Your task to perform on an android device: move a message to another label in the gmail app Image 0: 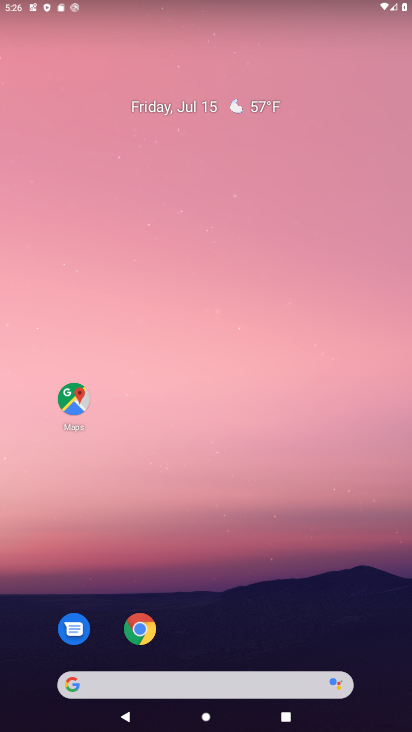
Step 0: drag from (252, 632) to (139, 56)
Your task to perform on an android device: move a message to another label in the gmail app Image 1: 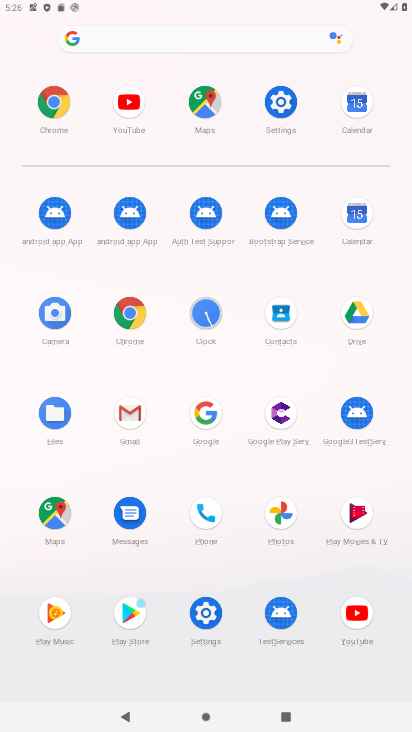
Step 1: click (131, 408)
Your task to perform on an android device: move a message to another label in the gmail app Image 2: 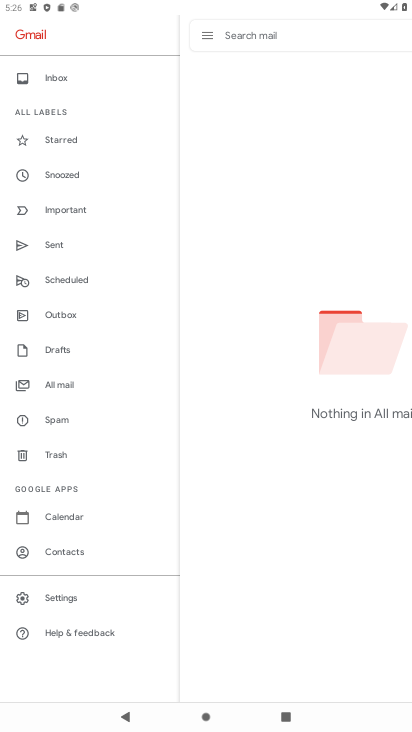
Step 2: click (53, 384)
Your task to perform on an android device: move a message to another label in the gmail app Image 3: 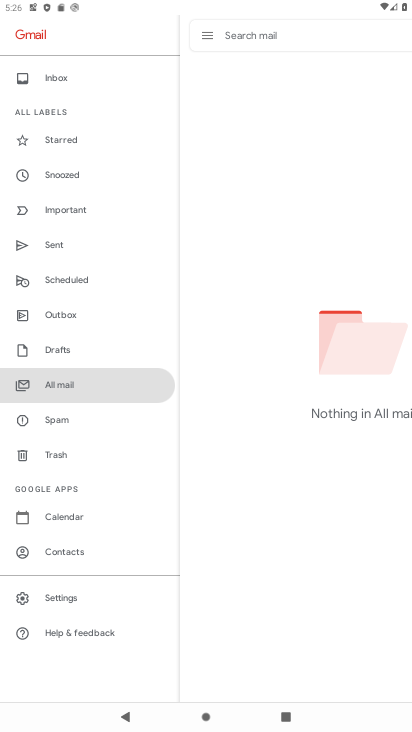
Step 3: task complete